Your task to perform on an android device: Open network settings Image 0: 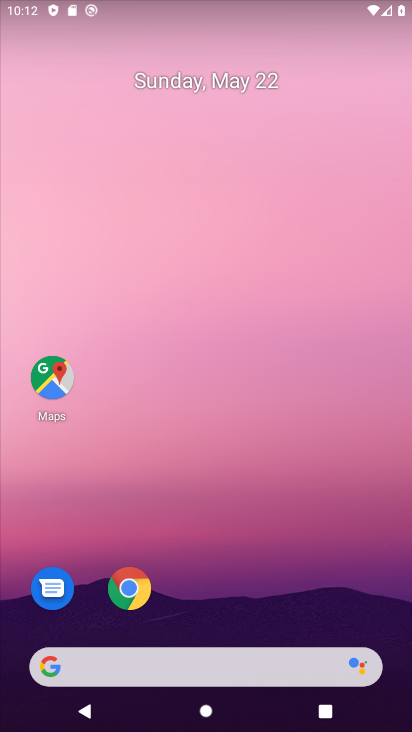
Step 0: drag from (223, 729) to (179, 173)
Your task to perform on an android device: Open network settings Image 1: 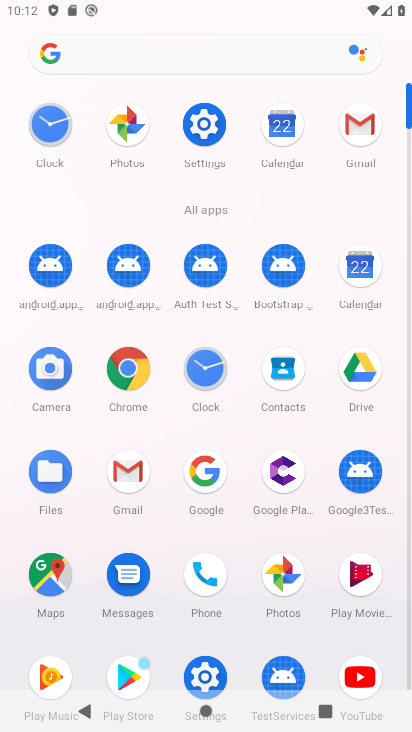
Step 1: click (205, 125)
Your task to perform on an android device: Open network settings Image 2: 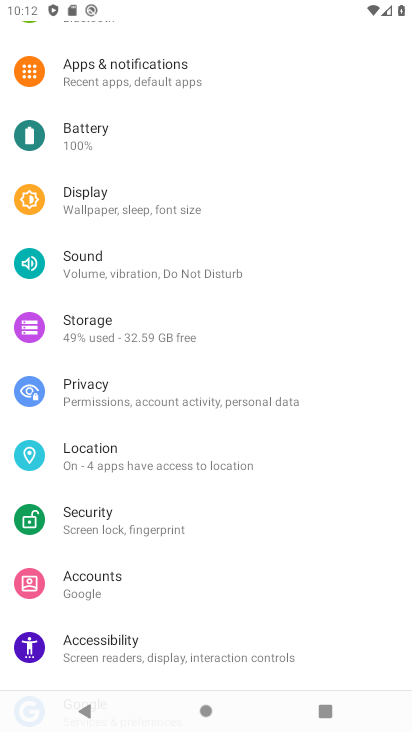
Step 2: drag from (205, 127) to (205, 527)
Your task to perform on an android device: Open network settings Image 3: 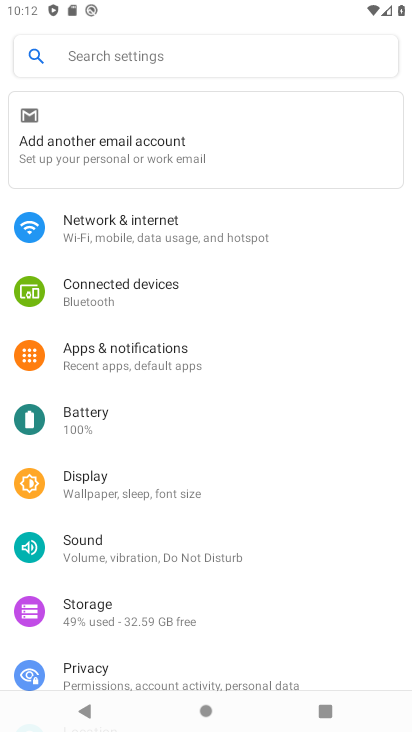
Step 3: click (104, 227)
Your task to perform on an android device: Open network settings Image 4: 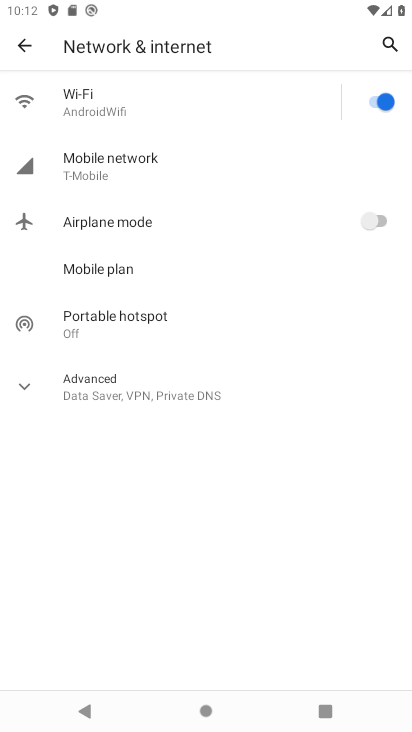
Step 4: click (103, 164)
Your task to perform on an android device: Open network settings Image 5: 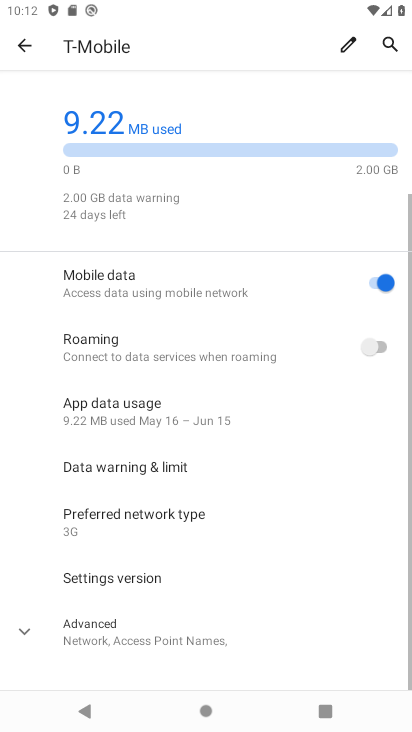
Step 5: task complete